Your task to perform on an android device: add a contact in the contacts app Image 0: 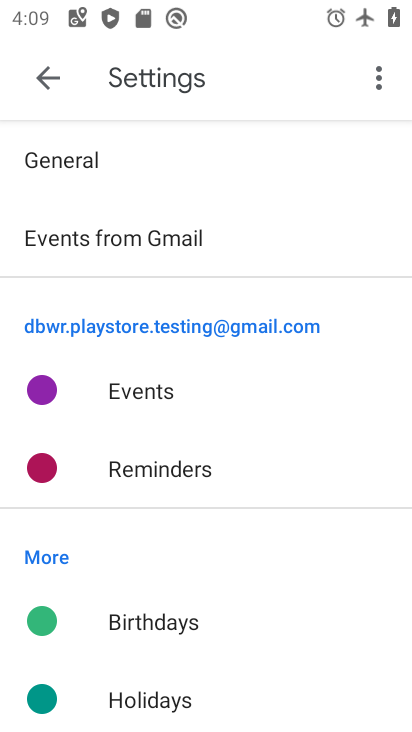
Step 0: press home button
Your task to perform on an android device: add a contact in the contacts app Image 1: 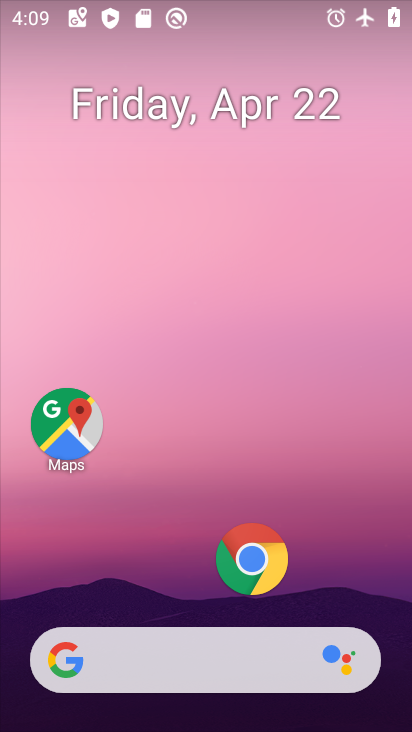
Step 1: drag from (148, 582) to (183, 288)
Your task to perform on an android device: add a contact in the contacts app Image 2: 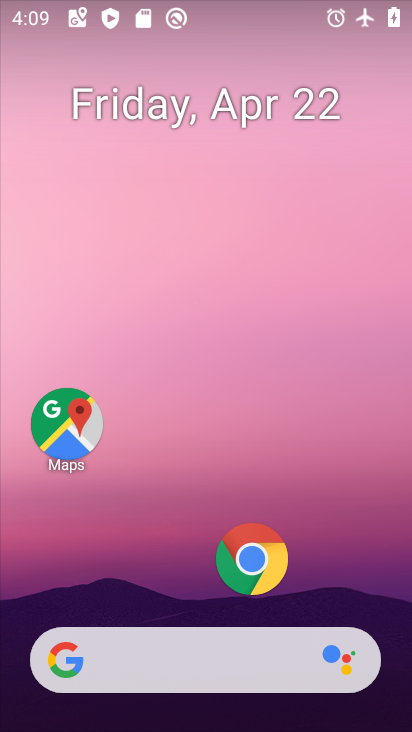
Step 2: drag from (191, 577) to (227, 0)
Your task to perform on an android device: add a contact in the contacts app Image 3: 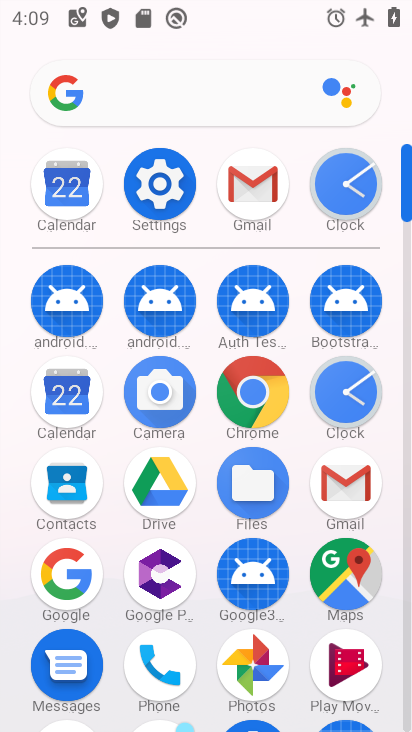
Step 3: click (57, 482)
Your task to perform on an android device: add a contact in the contacts app Image 4: 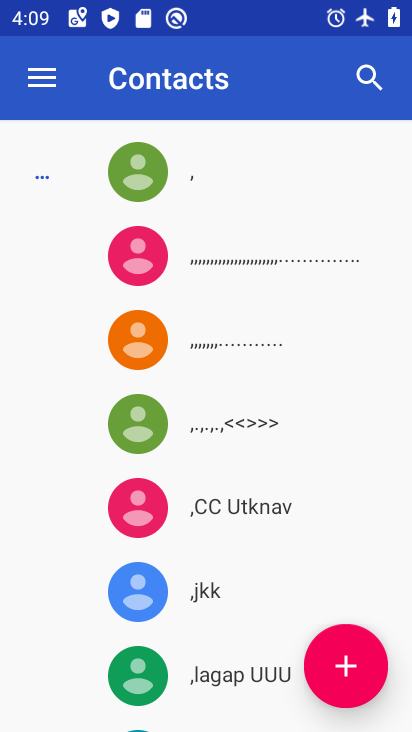
Step 4: click (360, 672)
Your task to perform on an android device: add a contact in the contacts app Image 5: 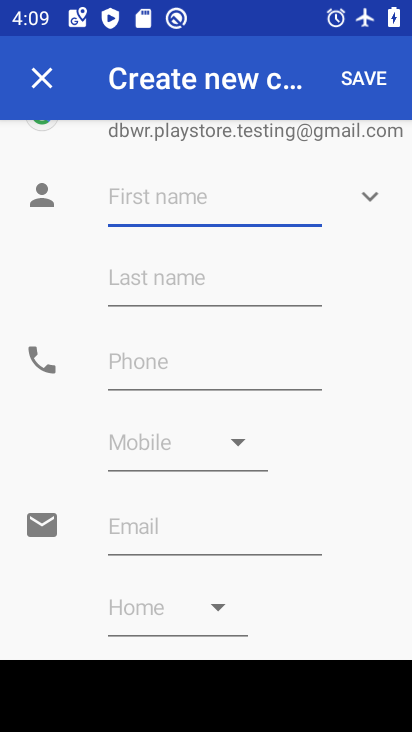
Step 5: type "grggr"
Your task to perform on an android device: add a contact in the contacts app Image 6: 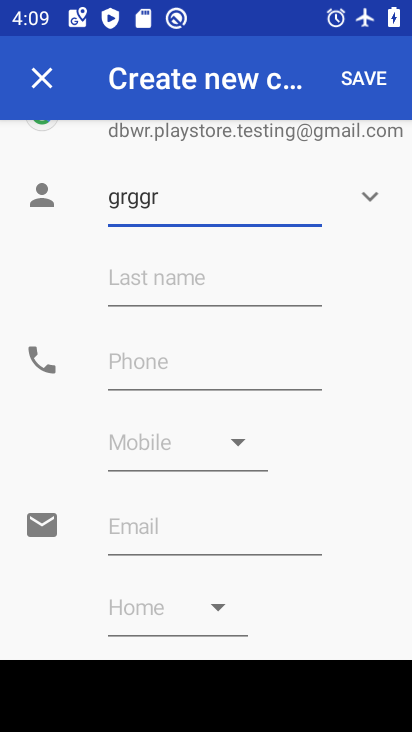
Step 6: click (359, 67)
Your task to perform on an android device: add a contact in the contacts app Image 7: 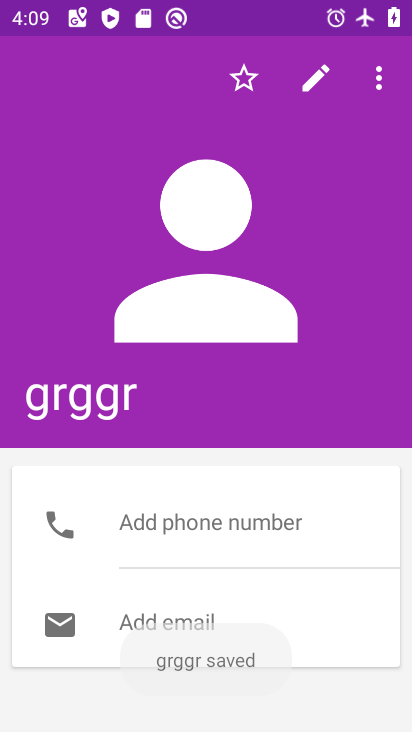
Step 7: task complete